Your task to perform on an android device: read, delete, or share a saved page in the chrome app Image 0: 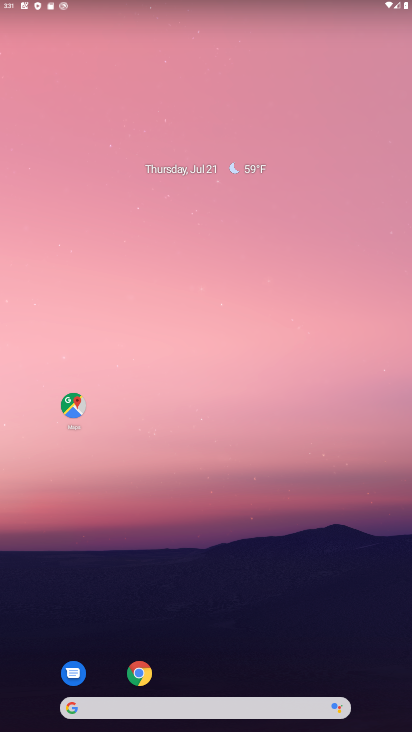
Step 0: click (139, 675)
Your task to perform on an android device: read, delete, or share a saved page in the chrome app Image 1: 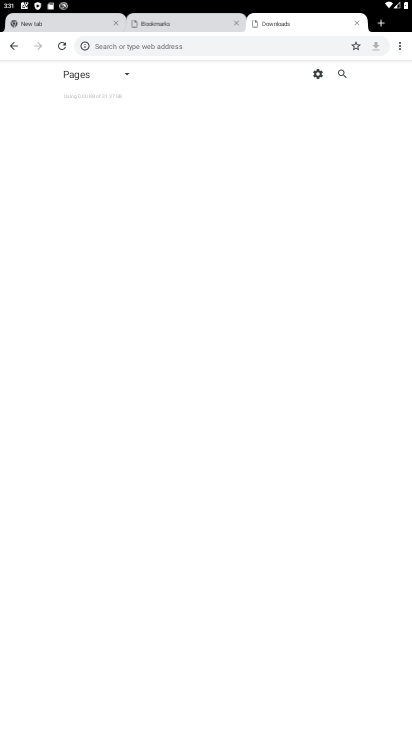
Step 1: press home button
Your task to perform on an android device: read, delete, or share a saved page in the chrome app Image 2: 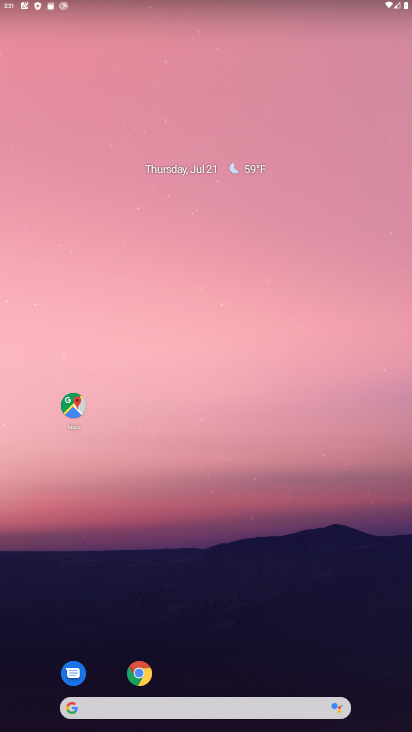
Step 2: click (138, 675)
Your task to perform on an android device: read, delete, or share a saved page in the chrome app Image 3: 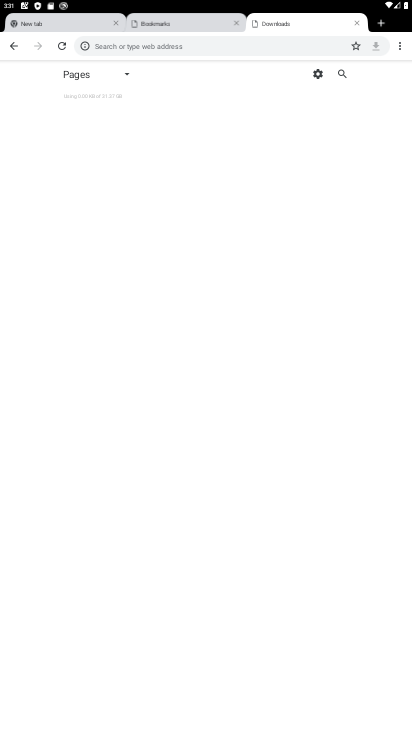
Step 3: click (125, 76)
Your task to perform on an android device: read, delete, or share a saved page in the chrome app Image 4: 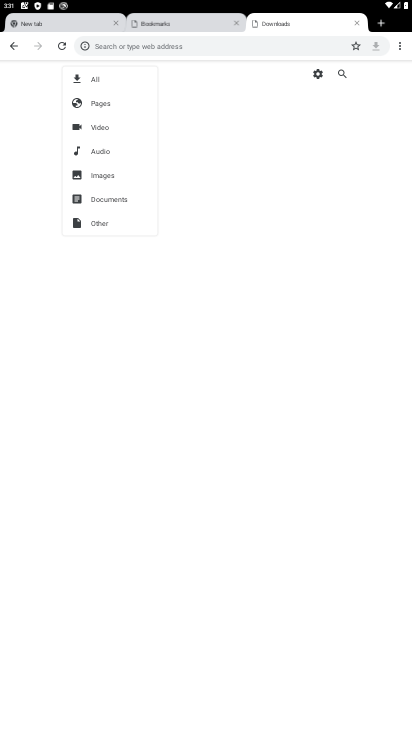
Step 4: click (98, 99)
Your task to perform on an android device: read, delete, or share a saved page in the chrome app Image 5: 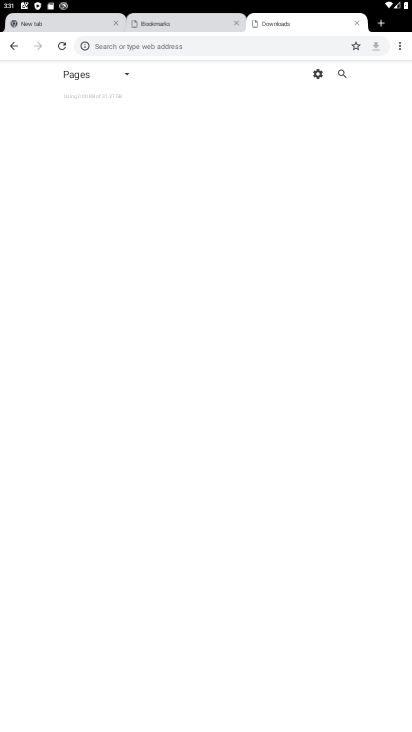
Step 5: task complete